Your task to perform on an android device: Go to wifi settings Image 0: 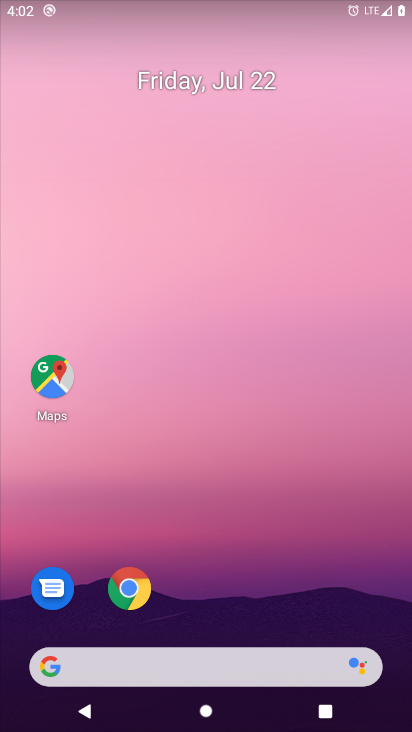
Step 0: drag from (116, 12) to (133, 481)
Your task to perform on an android device: Go to wifi settings Image 1: 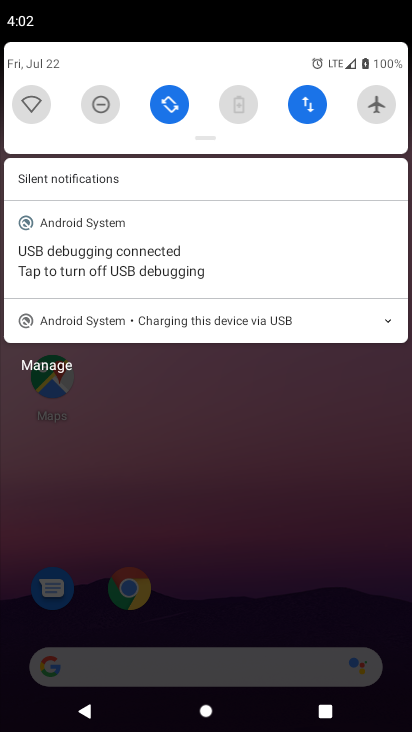
Step 1: click (28, 100)
Your task to perform on an android device: Go to wifi settings Image 2: 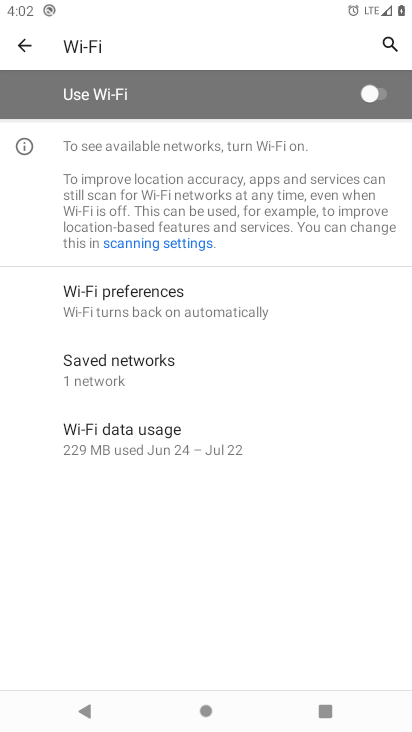
Step 2: task complete